Your task to perform on an android device: turn on the 12-hour format for clock Image 0: 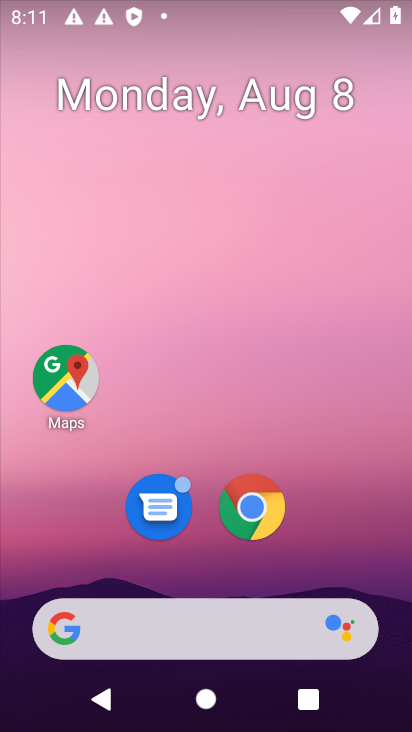
Step 0: drag from (153, 592) to (118, 111)
Your task to perform on an android device: turn on the 12-hour format for clock Image 1: 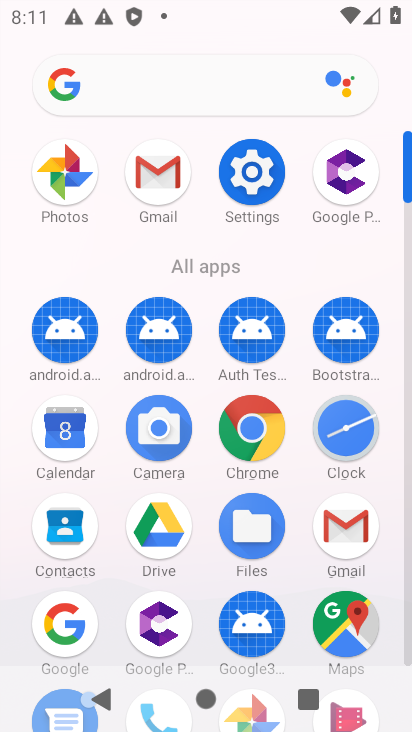
Step 1: click (327, 428)
Your task to perform on an android device: turn on the 12-hour format for clock Image 2: 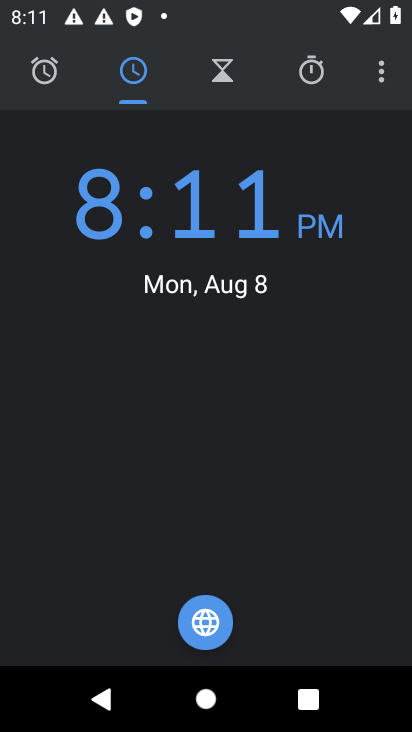
Step 2: click (377, 77)
Your task to perform on an android device: turn on the 12-hour format for clock Image 3: 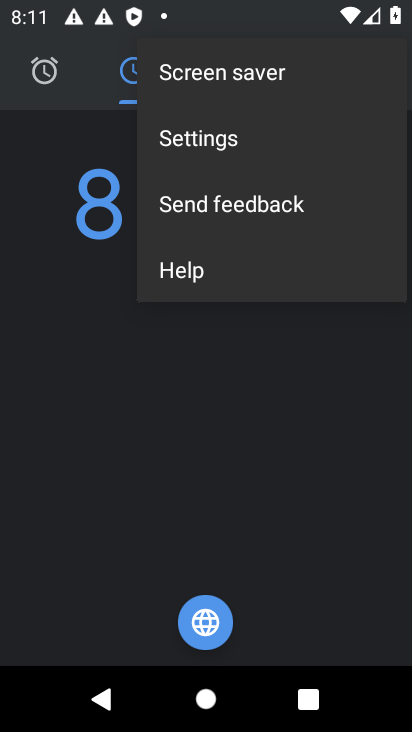
Step 3: click (183, 146)
Your task to perform on an android device: turn on the 12-hour format for clock Image 4: 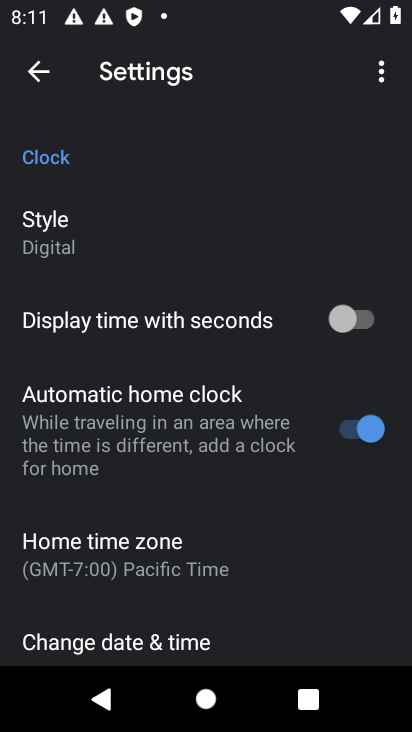
Step 4: drag from (143, 617) to (120, 142)
Your task to perform on an android device: turn on the 12-hour format for clock Image 5: 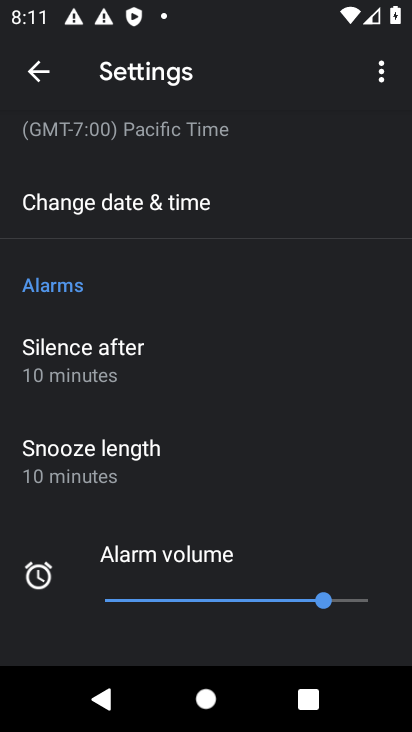
Step 5: drag from (228, 479) to (243, 374)
Your task to perform on an android device: turn on the 12-hour format for clock Image 6: 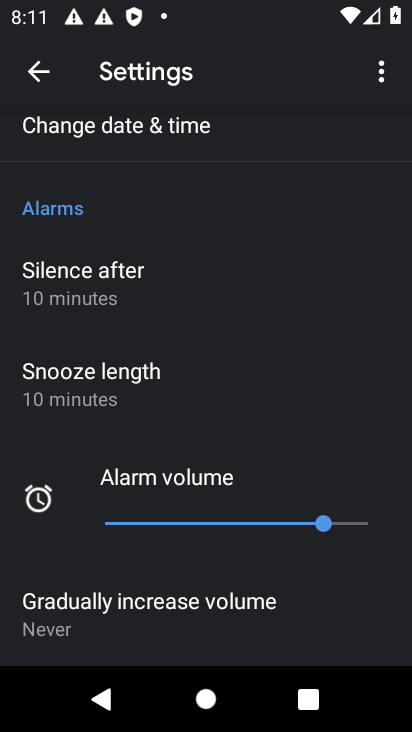
Step 6: click (213, 147)
Your task to perform on an android device: turn on the 12-hour format for clock Image 7: 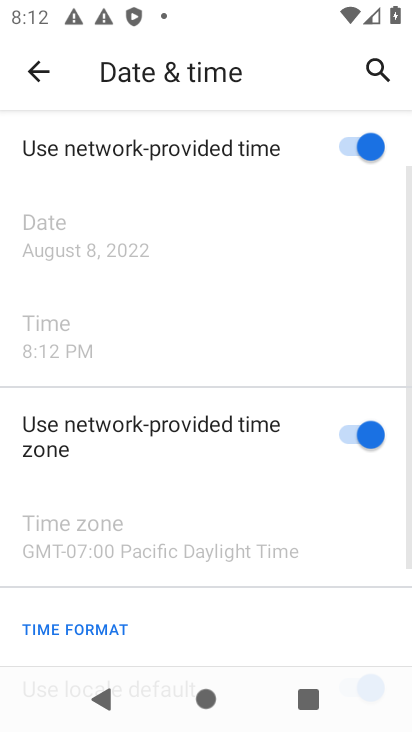
Step 7: task complete